Your task to perform on an android device: Open Chrome and go to the settings page Image 0: 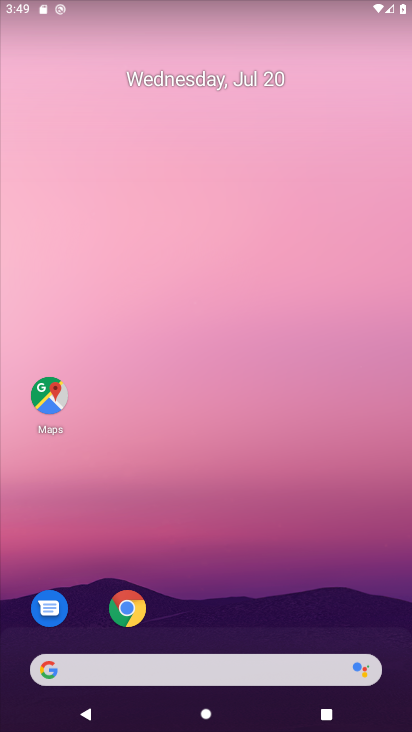
Step 0: click (116, 609)
Your task to perform on an android device: Open Chrome and go to the settings page Image 1: 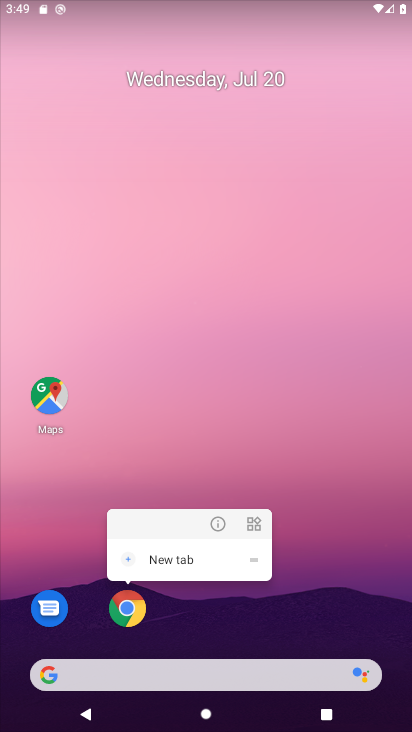
Step 1: click (121, 620)
Your task to perform on an android device: Open Chrome and go to the settings page Image 2: 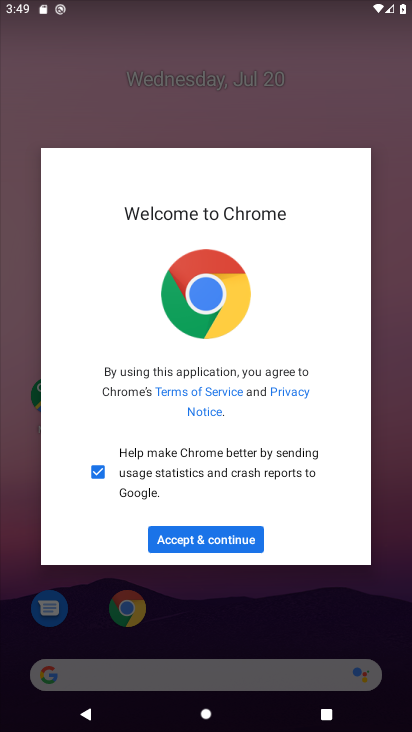
Step 2: click (213, 539)
Your task to perform on an android device: Open Chrome and go to the settings page Image 3: 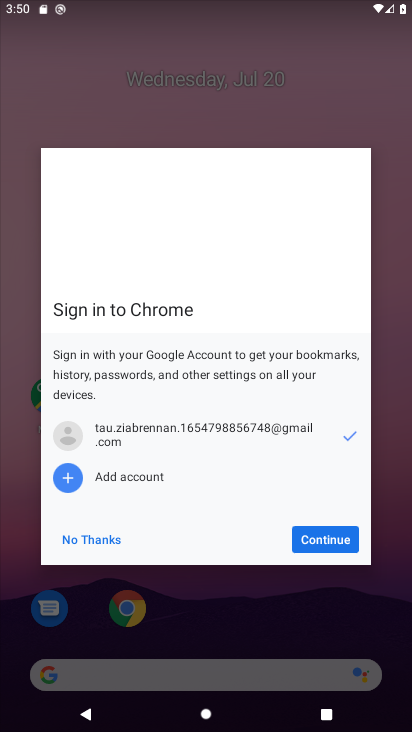
Step 3: click (321, 541)
Your task to perform on an android device: Open Chrome and go to the settings page Image 4: 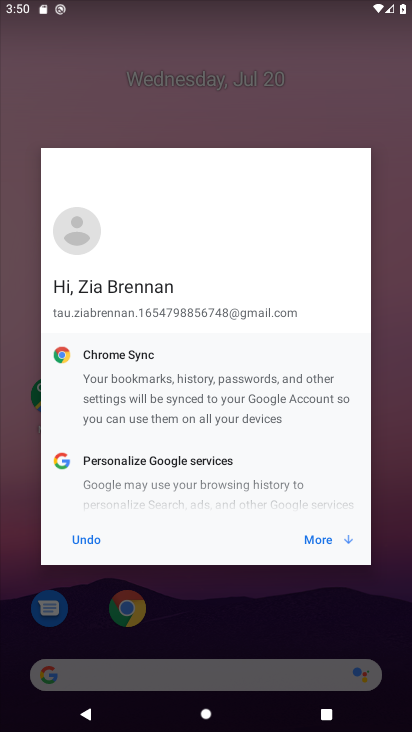
Step 4: click (322, 540)
Your task to perform on an android device: Open Chrome and go to the settings page Image 5: 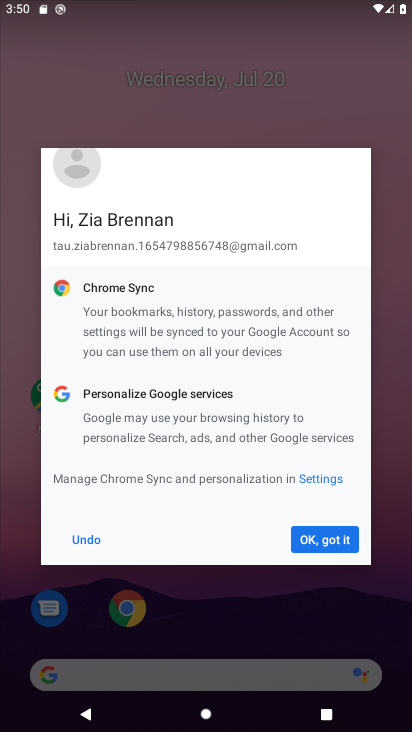
Step 5: click (322, 540)
Your task to perform on an android device: Open Chrome and go to the settings page Image 6: 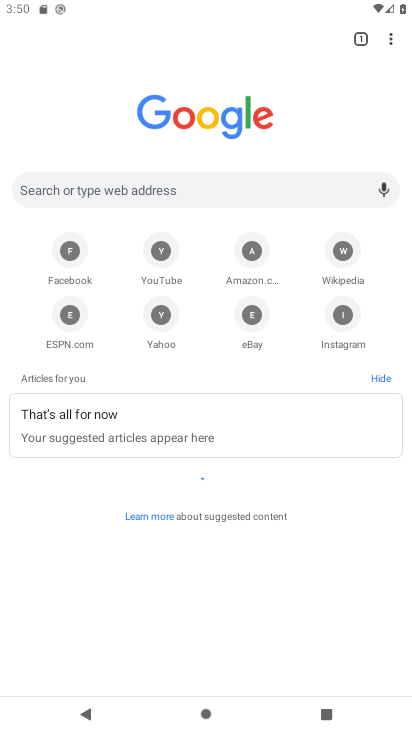
Step 6: click (385, 40)
Your task to perform on an android device: Open Chrome and go to the settings page Image 7: 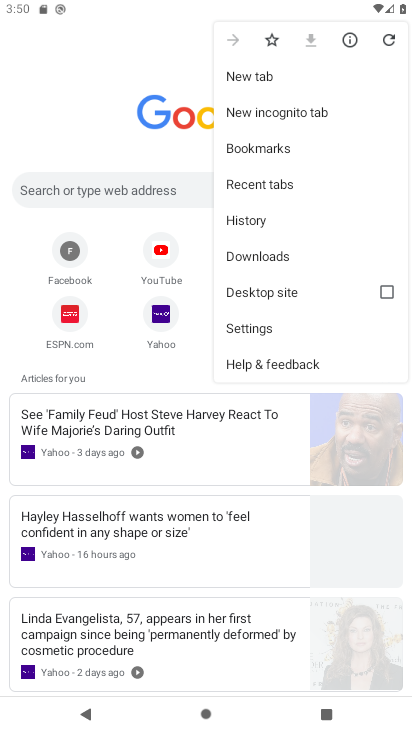
Step 7: click (249, 325)
Your task to perform on an android device: Open Chrome and go to the settings page Image 8: 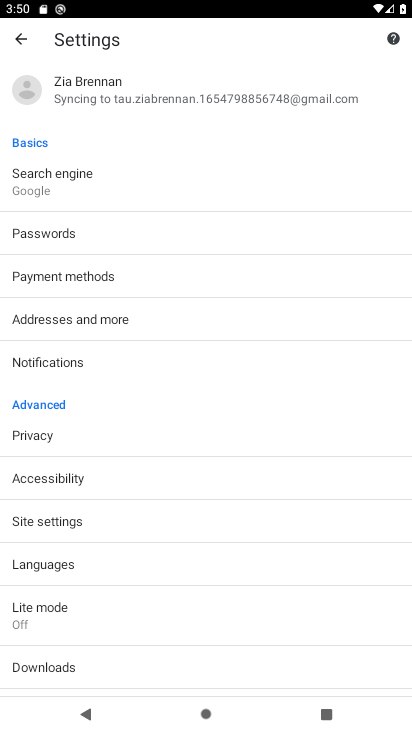
Step 8: task complete